Your task to perform on an android device: choose inbox layout in the gmail app Image 0: 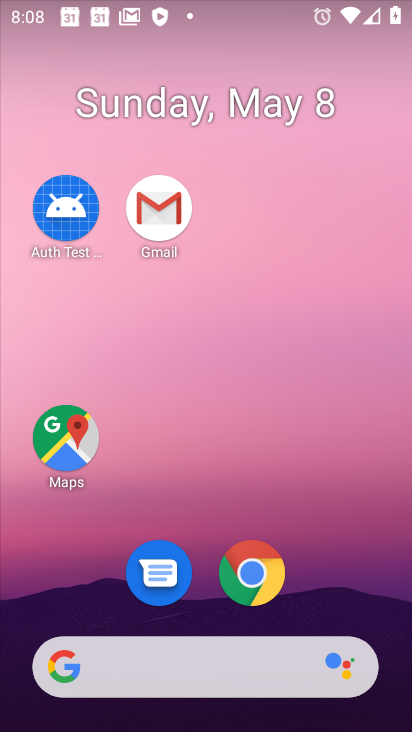
Step 0: drag from (362, 616) to (163, 113)
Your task to perform on an android device: choose inbox layout in the gmail app Image 1: 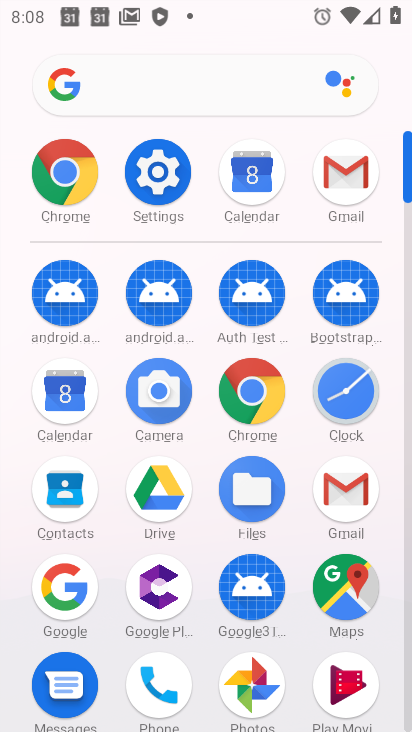
Step 1: click (338, 165)
Your task to perform on an android device: choose inbox layout in the gmail app Image 2: 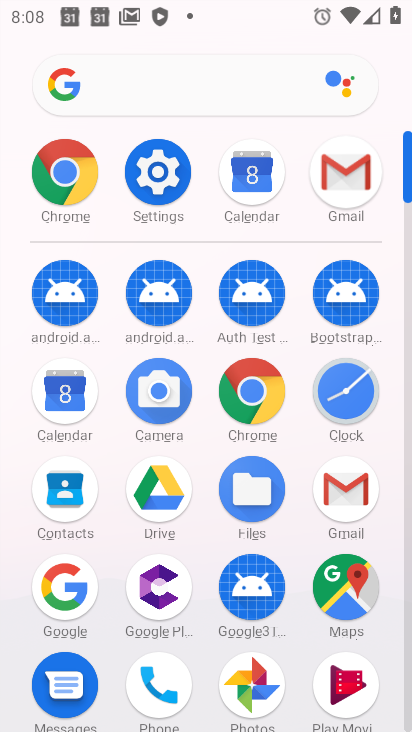
Step 2: click (338, 165)
Your task to perform on an android device: choose inbox layout in the gmail app Image 3: 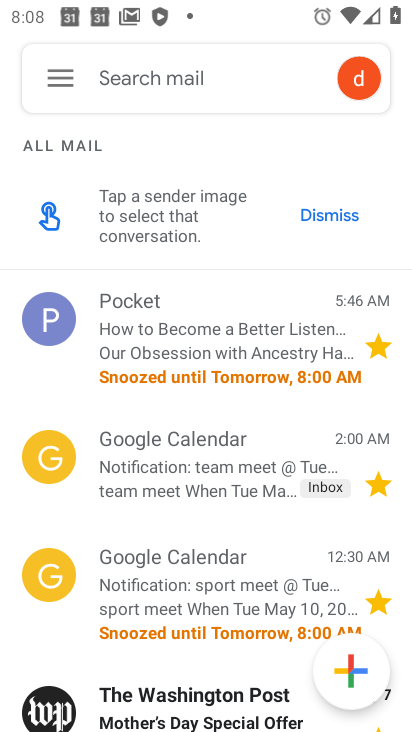
Step 3: click (251, 474)
Your task to perform on an android device: choose inbox layout in the gmail app Image 4: 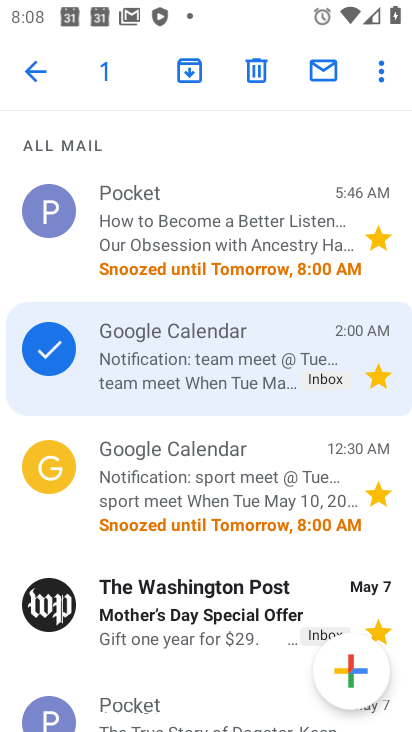
Step 4: click (376, 58)
Your task to perform on an android device: choose inbox layout in the gmail app Image 5: 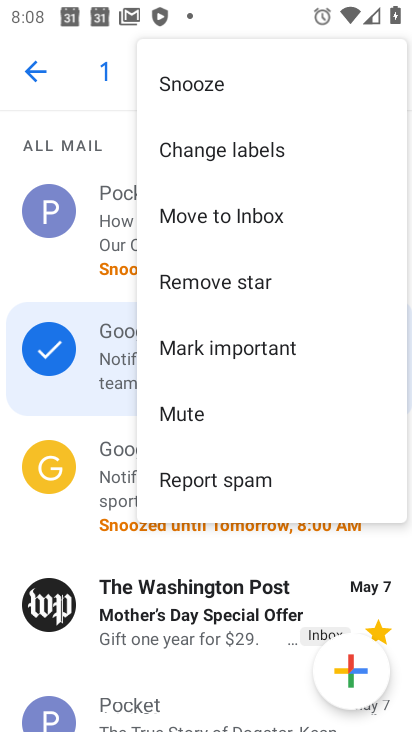
Step 5: click (178, 146)
Your task to perform on an android device: choose inbox layout in the gmail app Image 6: 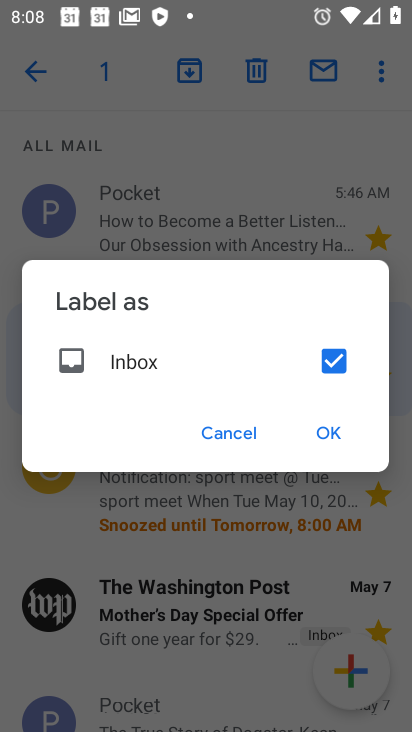
Step 6: click (222, 431)
Your task to perform on an android device: choose inbox layout in the gmail app Image 7: 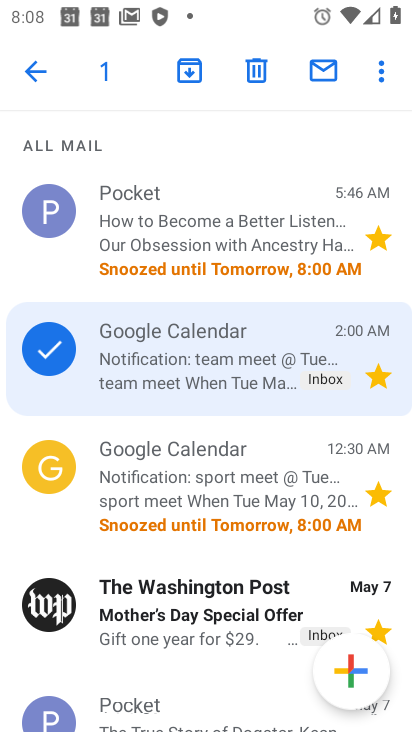
Step 7: click (377, 60)
Your task to perform on an android device: choose inbox layout in the gmail app Image 8: 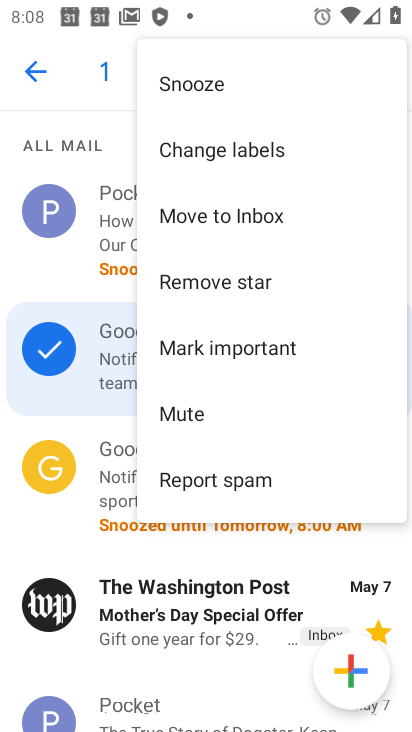
Step 8: click (206, 141)
Your task to perform on an android device: choose inbox layout in the gmail app Image 9: 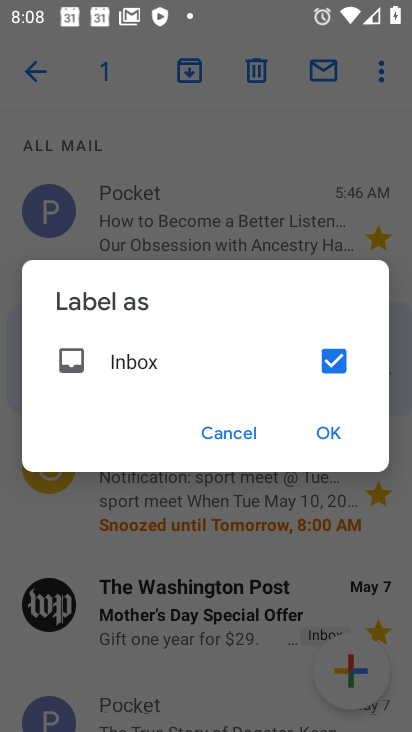
Step 9: click (324, 429)
Your task to perform on an android device: choose inbox layout in the gmail app Image 10: 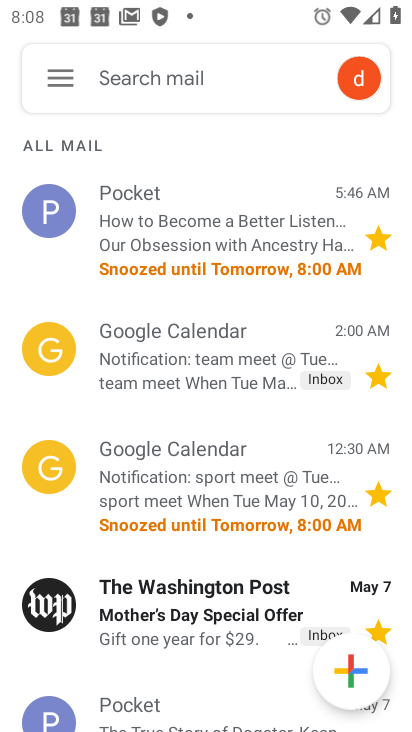
Step 10: task complete